Your task to perform on an android device: move an email to a new category in the gmail app Image 0: 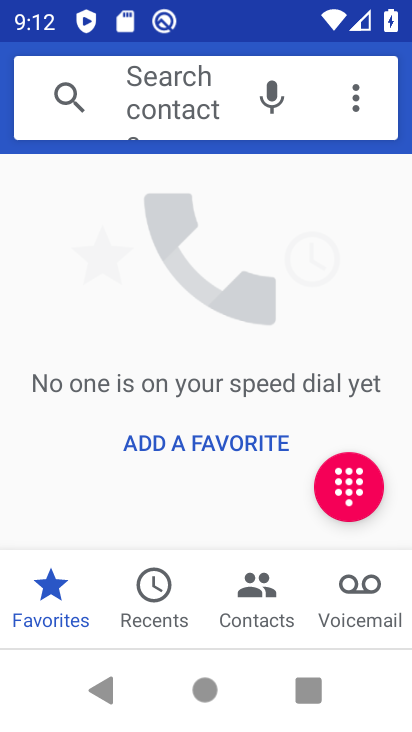
Step 0: press home button
Your task to perform on an android device: move an email to a new category in the gmail app Image 1: 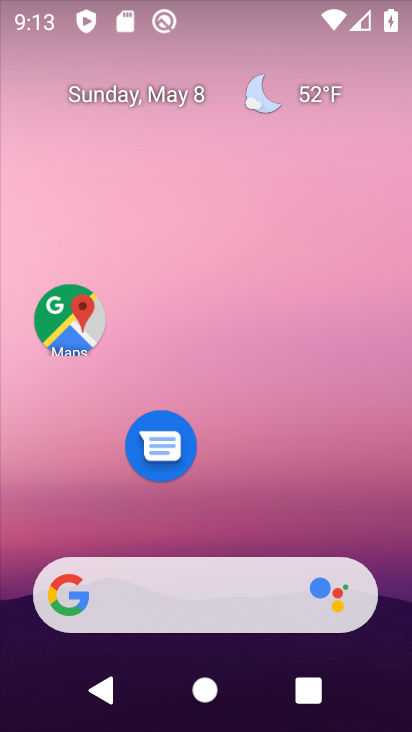
Step 1: drag from (288, 495) to (317, 22)
Your task to perform on an android device: move an email to a new category in the gmail app Image 2: 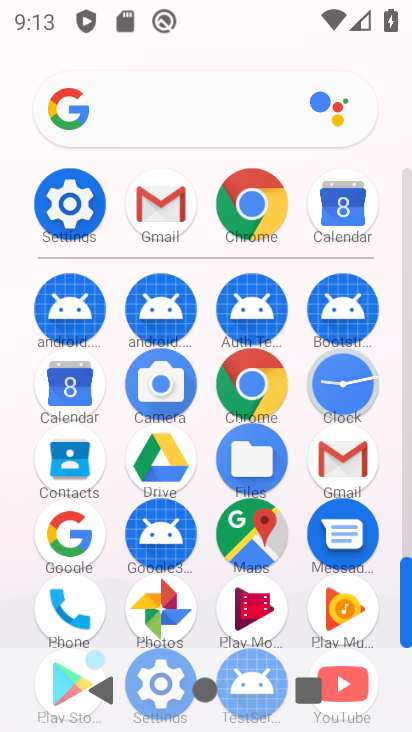
Step 2: click (368, 465)
Your task to perform on an android device: move an email to a new category in the gmail app Image 3: 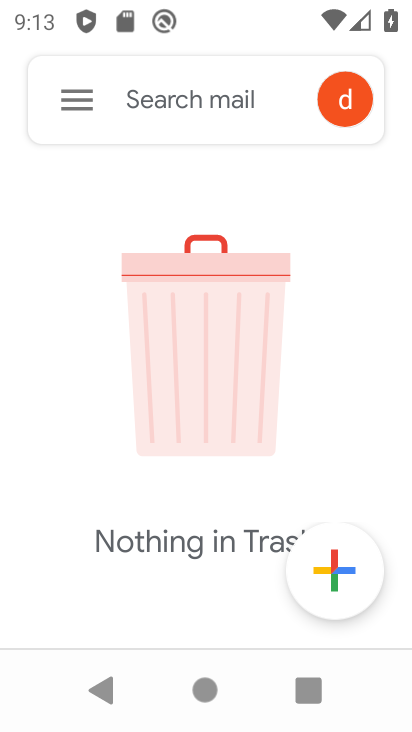
Step 3: click (70, 106)
Your task to perform on an android device: move an email to a new category in the gmail app Image 4: 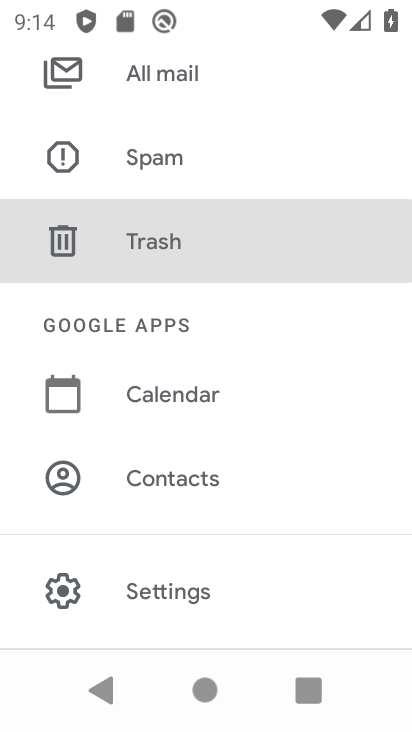
Step 4: task complete